Your task to perform on an android device: Open Youtube and go to "Your channel" Image 0: 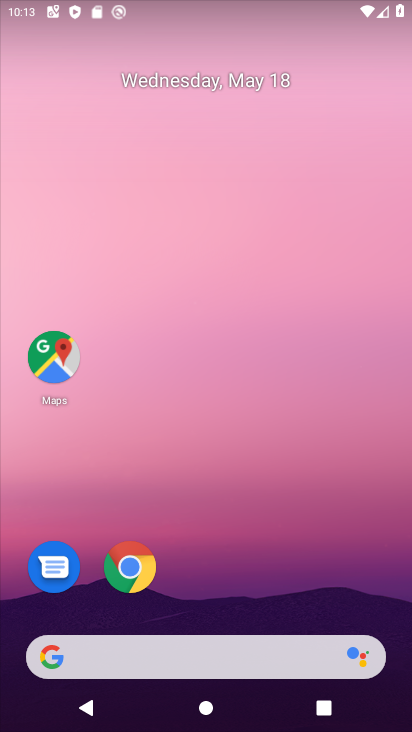
Step 0: drag from (254, 678) to (382, 105)
Your task to perform on an android device: Open Youtube and go to "Your channel" Image 1: 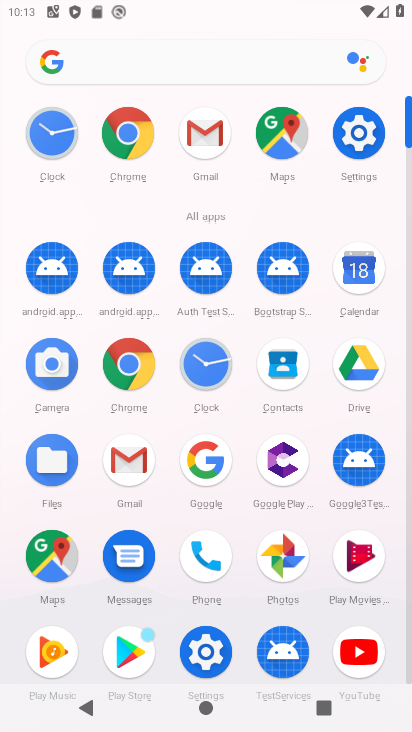
Step 1: click (359, 639)
Your task to perform on an android device: Open Youtube and go to "Your channel" Image 2: 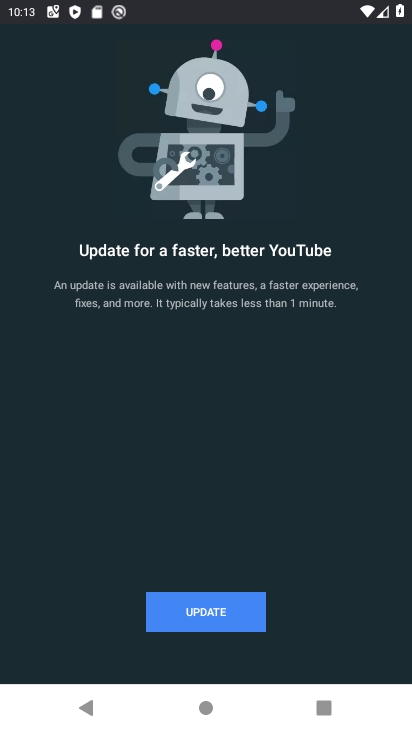
Step 2: click (235, 623)
Your task to perform on an android device: Open Youtube and go to "Your channel" Image 3: 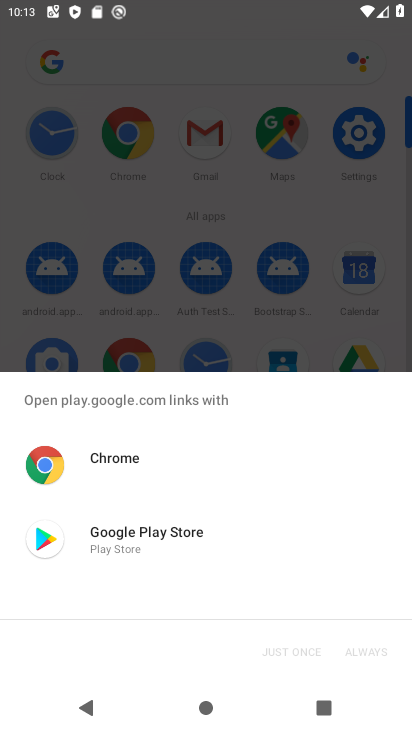
Step 3: click (158, 539)
Your task to perform on an android device: Open Youtube and go to "Your channel" Image 4: 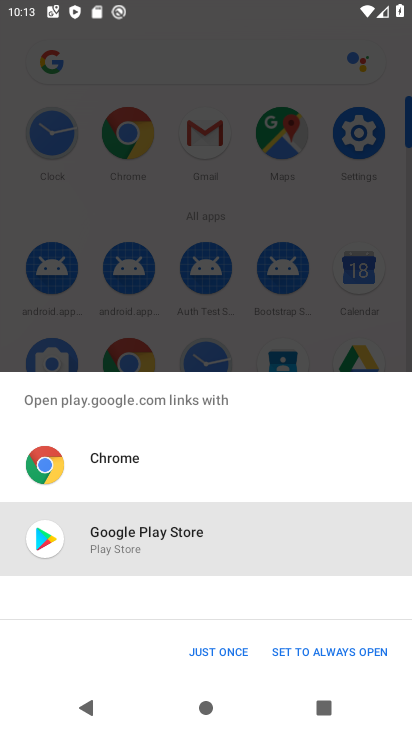
Step 4: click (216, 649)
Your task to perform on an android device: Open Youtube and go to "Your channel" Image 5: 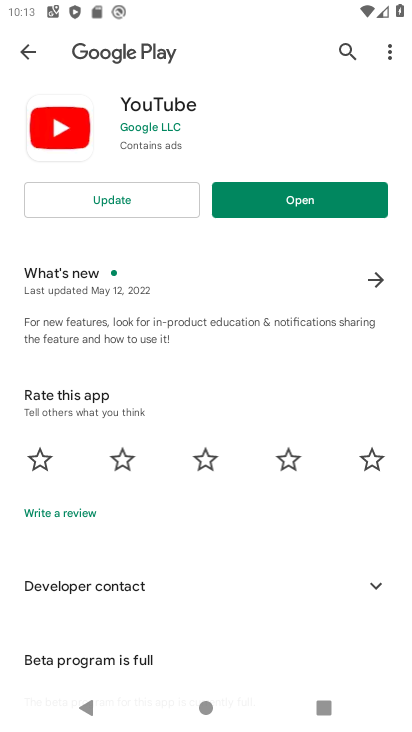
Step 5: click (111, 198)
Your task to perform on an android device: Open Youtube and go to "Your channel" Image 6: 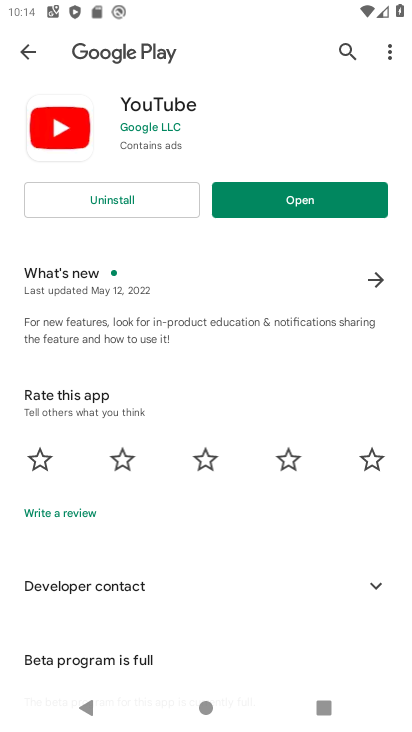
Step 6: click (300, 208)
Your task to perform on an android device: Open Youtube and go to "Your channel" Image 7: 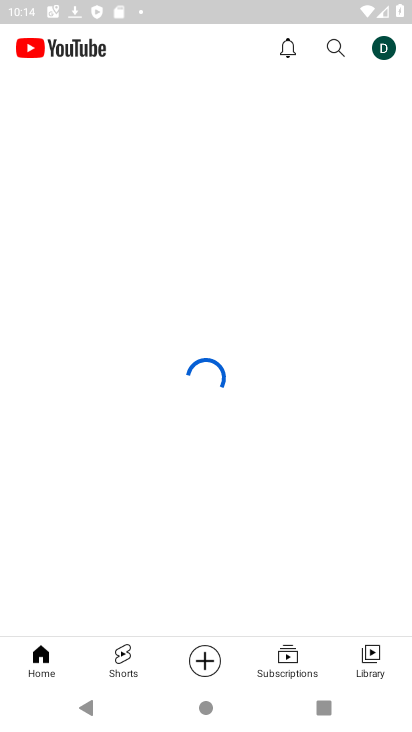
Step 7: click (378, 52)
Your task to perform on an android device: Open Youtube and go to "Your channel" Image 8: 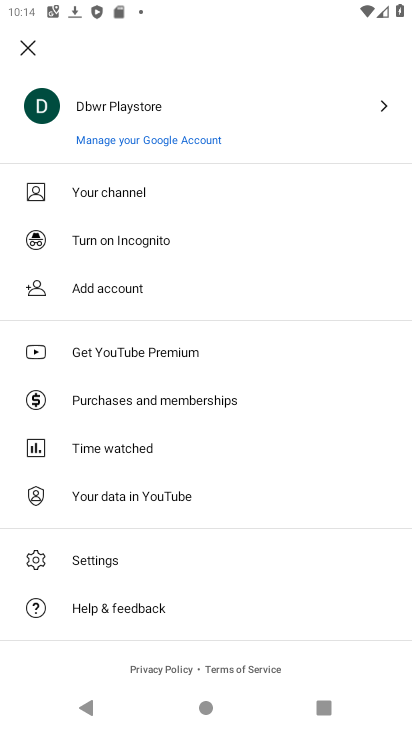
Step 8: click (135, 197)
Your task to perform on an android device: Open Youtube and go to "Your channel" Image 9: 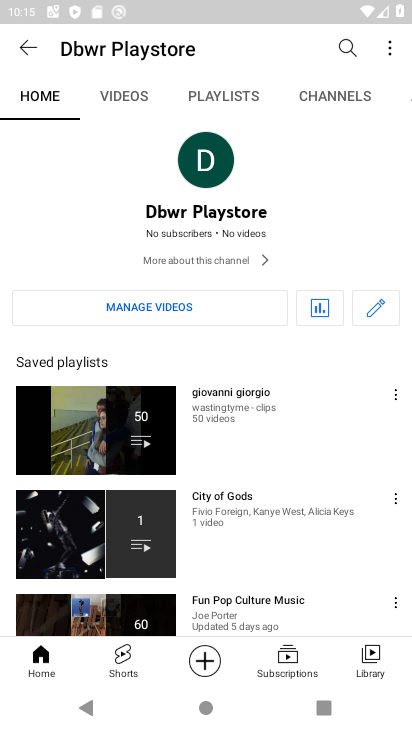
Step 9: task complete